Your task to perform on an android device: Search for Mexican restaurants on Maps Image 0: 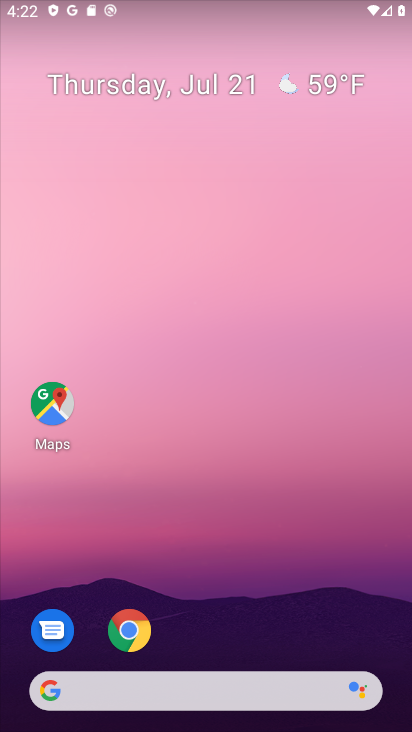
Step 0: drag from (236, 581) to (150, 1)
Your task to perform on an android device: Search for Mexican restaurants on Maps Image 1: 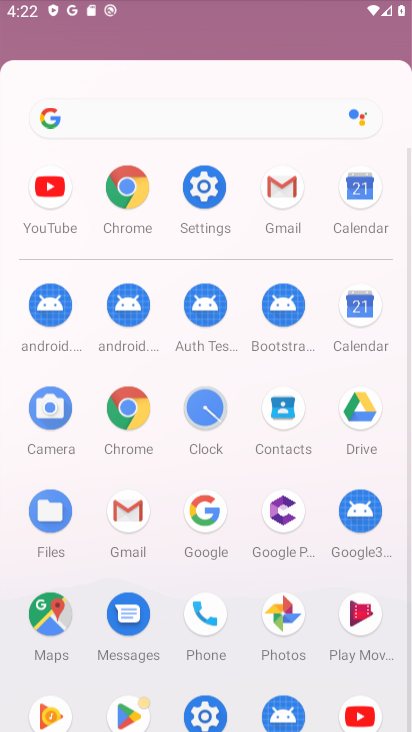
Step 1: drag from (190, 93) to (210, 9)
Your task to perform on an android device: Search for Mexican restaurants on Maps Image 2: 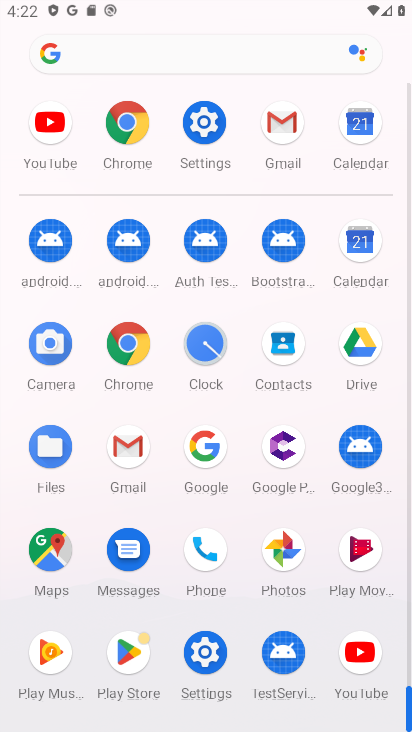
Step 2: click (67, 547)
Your task to perform on an android device: Search for Mexican restaurants on Maps Image 3: 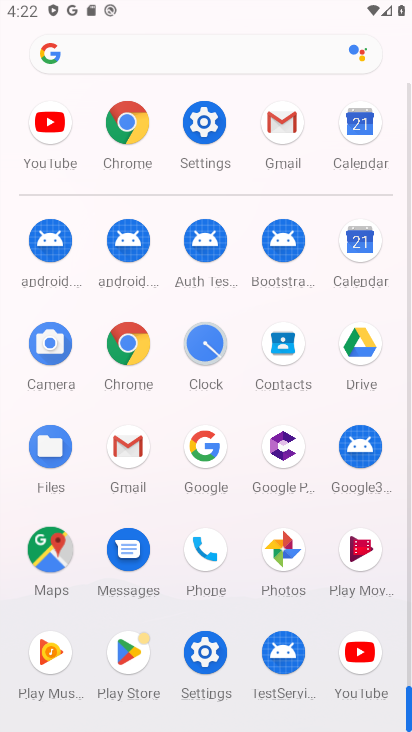
Step 3: click (52, 552)
Your task to perform on an android device: Search for Mexican restaurants on Maps Image 4: 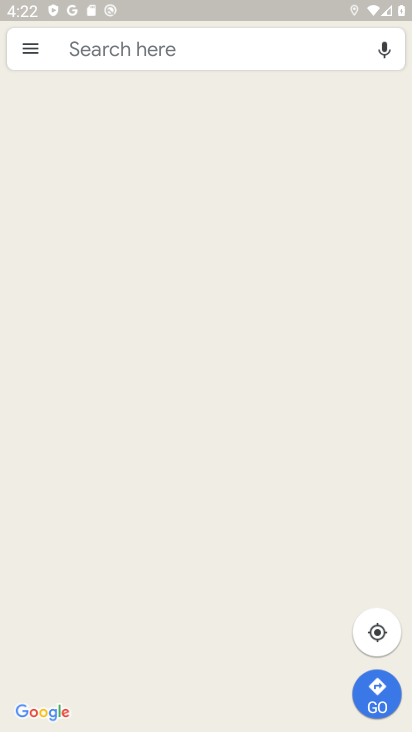
Step 4: click (75, 40)
Your task to perform on an android device: Search for Mexican restaurants on Maps Image 5: 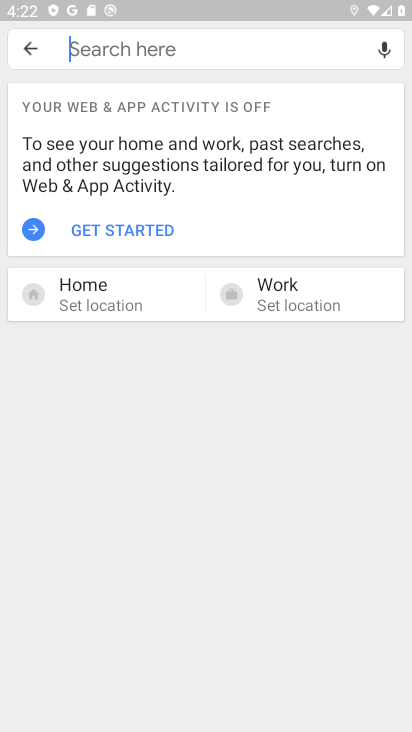
Step 5: click (82, 40)
Your task to perform on an android device: Search for Mexican restaurants on Maps Image 6: 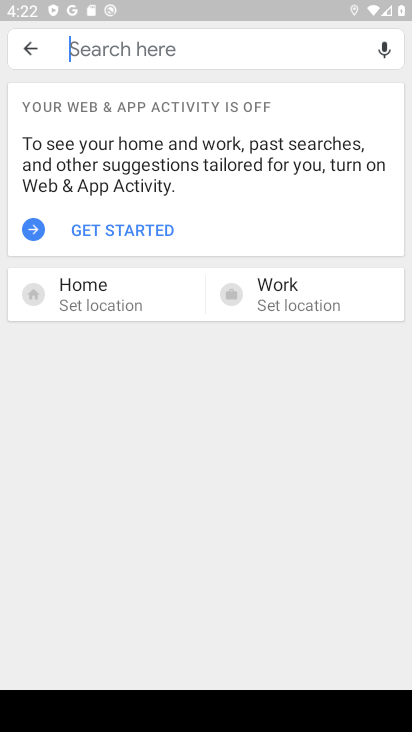
Step 6: type "mexican restaurants"
Your task to perform on an android device: Search for Mexican restaurants on Maps Image 7: 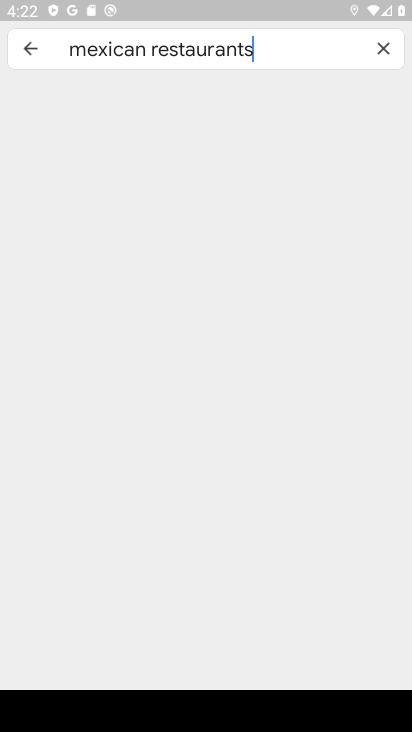
Step 7: click (263, 48)
Your task to perform on an android device: Search for Mexican restaurants on Maps Image 8: 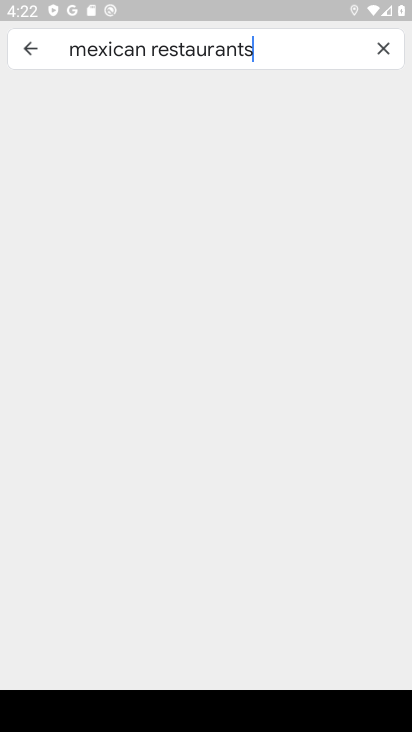
Step 8: click (267, 48)
Your task to perform on an android device: Search for Mexican restaurants on Maps Image 9: 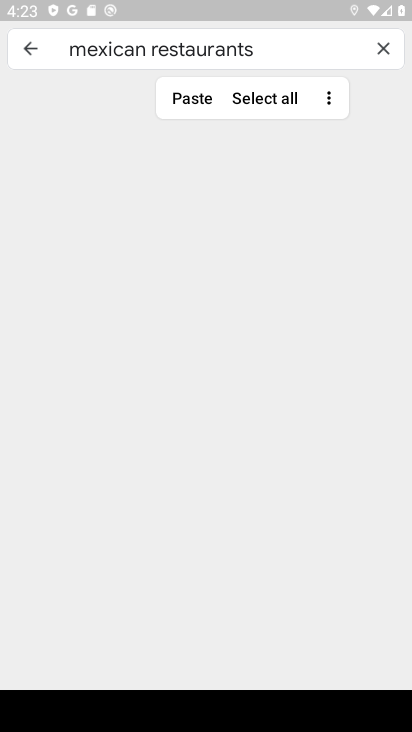
Step 9: click (203, 99)
Your task to perform on an android device: Search for Mexican restaurants on Maps Image 10: 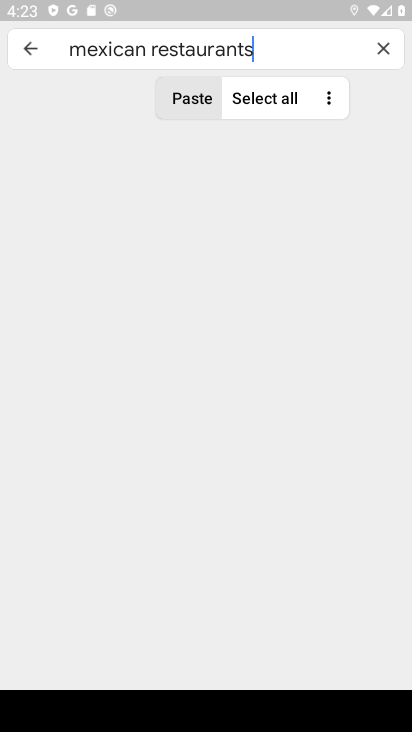
Step 10: click (209, 104)
Your task to perform on an android device: Search for Mexican restaurants on Maps Image 11: 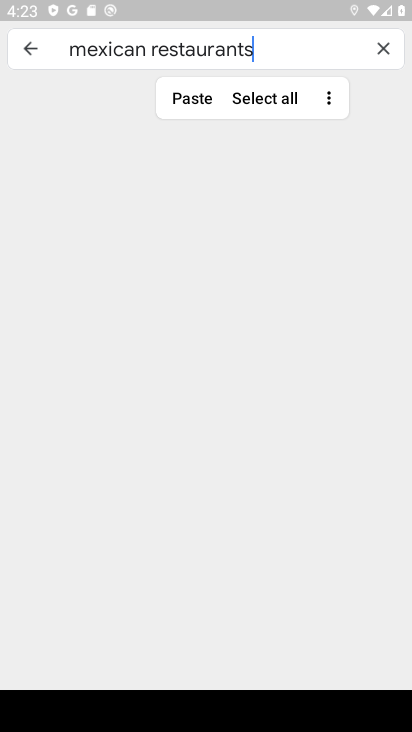
Step 11: click (209, 104)
Your task to perform on an android device: Search for Mexican restaurants on Maps Image 12: 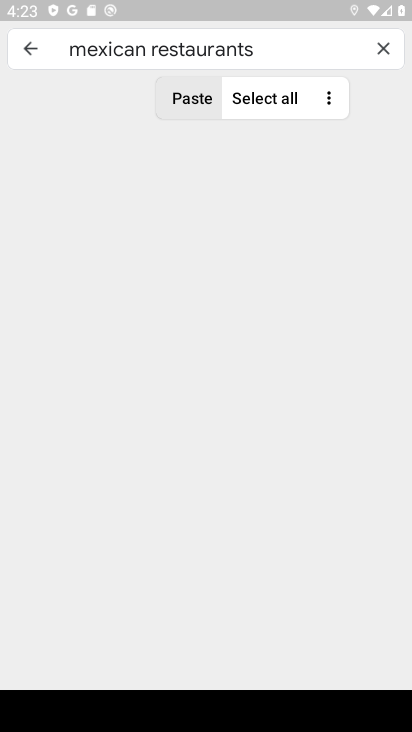
Step 12: click (203, 88)
Your task to perform on an android device: Search for Mexican restaurants on Maps Image 13: 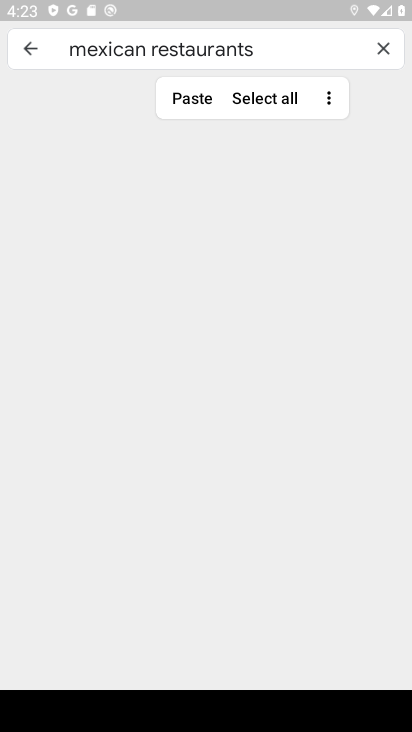
Step 13: click (267, 31)
Your task to perform on an android device: Search for Mexican restaurants on Maps Image 14: 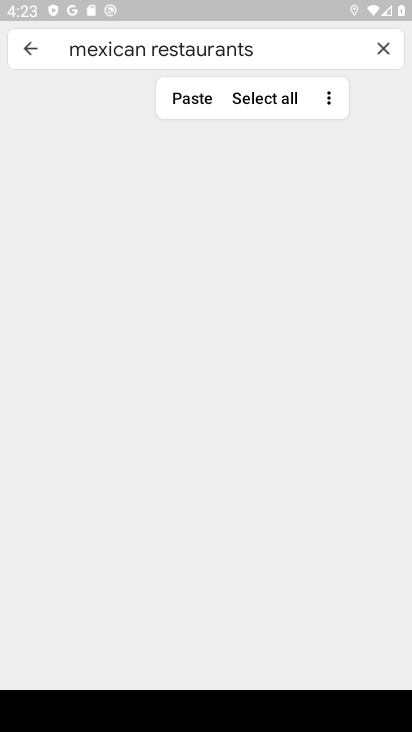
Step 14: click (270, 34)
Your task to perform on an android device: Search for Mexican restaurants on Maps Image 15: 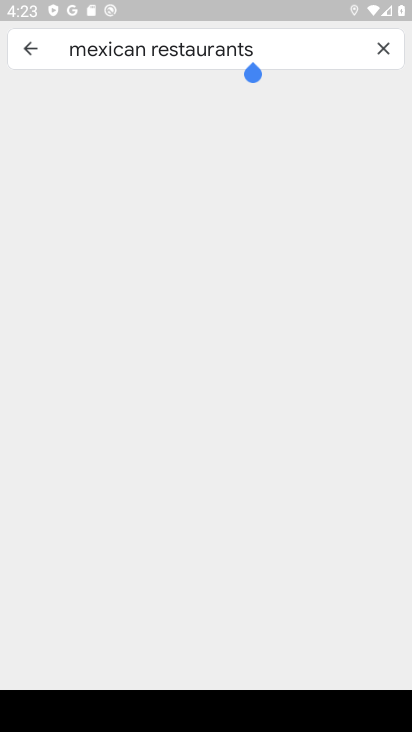
Step 15: click (382, 42)
Your task to perform on an android device: Search for Mexican restaurants on Maps Image 16: 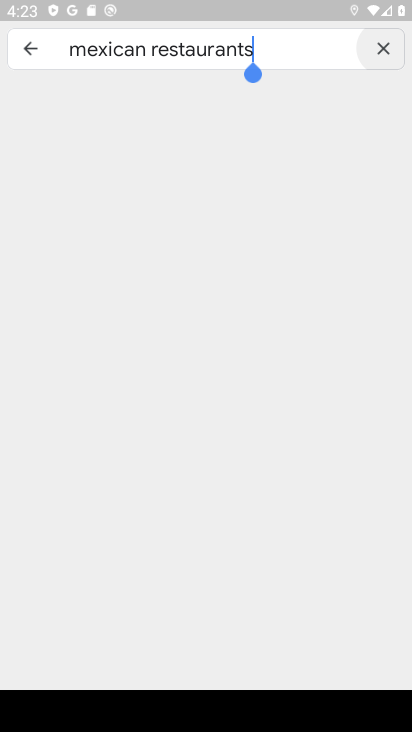
Step 16: click (381, 42)
Your task to perform on an android device: Search for Mexican restaurants on Maps Image 17: 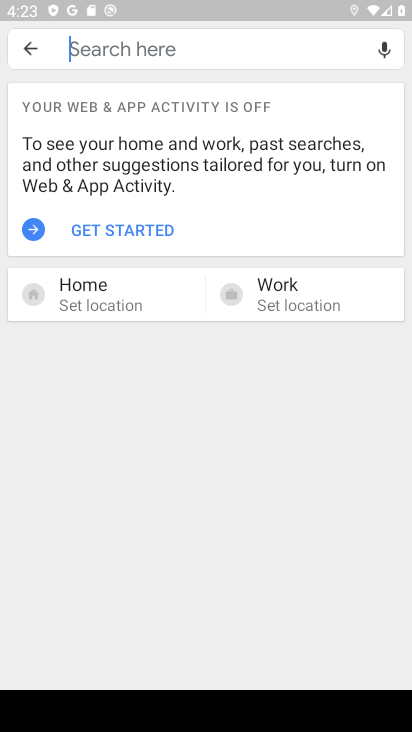
Step 17: click (382, 47)
Your task to perform on an android device: Search for Mexican restaurants on Maps Image 18: 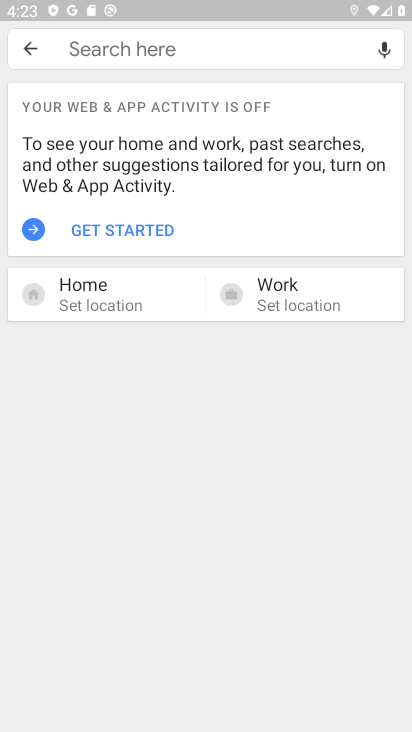
Step 18: click (190, 55)
Your task to perform on an android device: Search for Mexican restaurants on Maps Image 19: 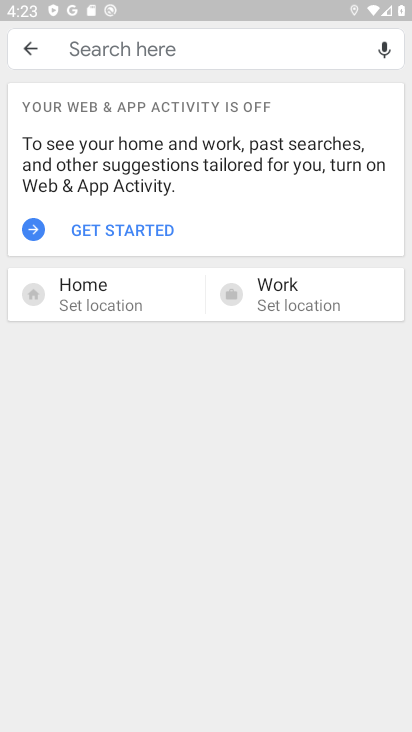
Step 19: click (196, 59)
Your task to perform on an android device: Search for Mexican restaurants on Maps Image 20: 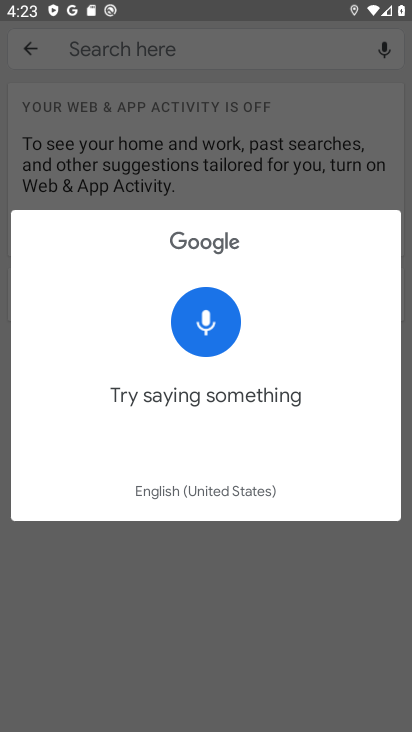
Step 20: click (198, 61)
Your task to perform on an android device: Search for Mexican restaurants on Maps Image 21: 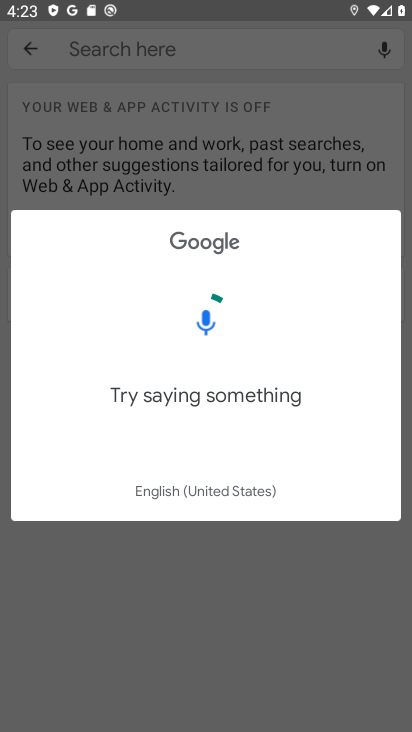
Step 21: click (198, 61)
Your task to perform on an android device: Search for Mexican restaurants on Maps Image 22: 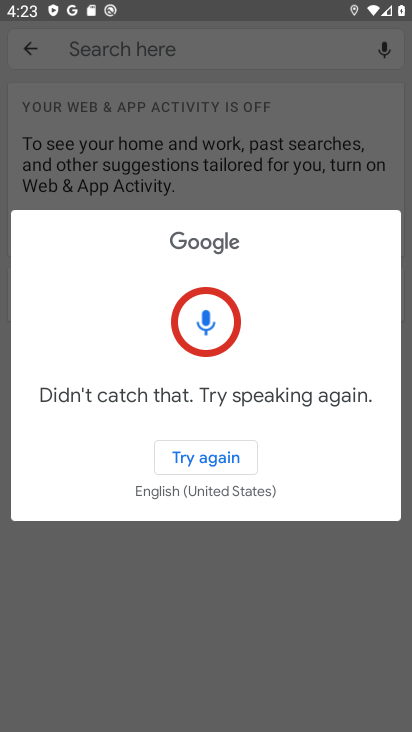
Step 22: click (200, 63)
Your task to perform on an android device: Search for Mexican restaurants on Maps Image 23: 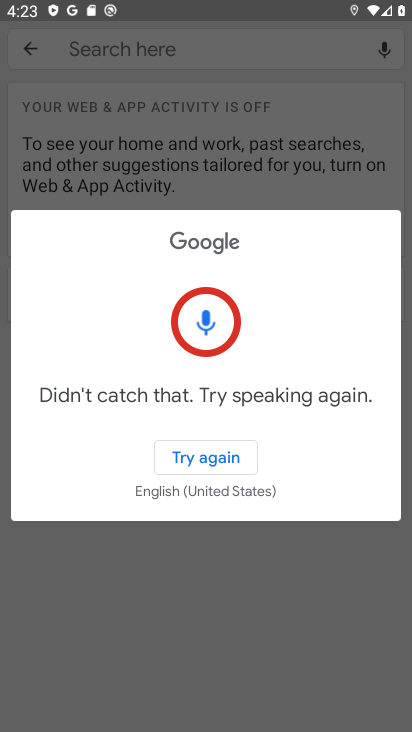
Step 23: click (160, 27)
Your task to perform on an android device: Search for Mexican restaurants on Maps Image 24: 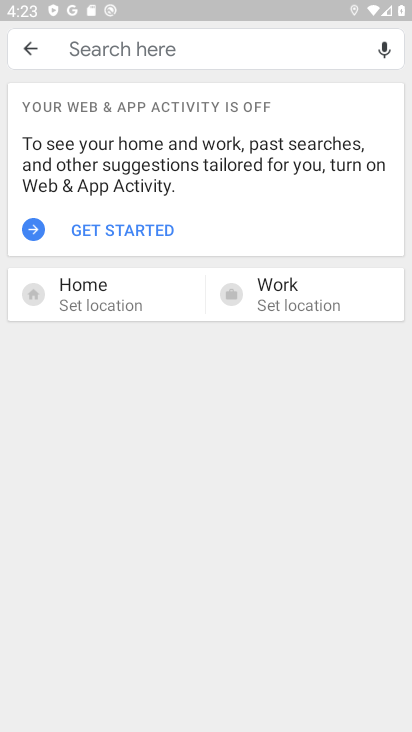
Step 24: click (188, 71)
Your task to perform on an android device: Search for Mexican restaurants on Maps Image 25: 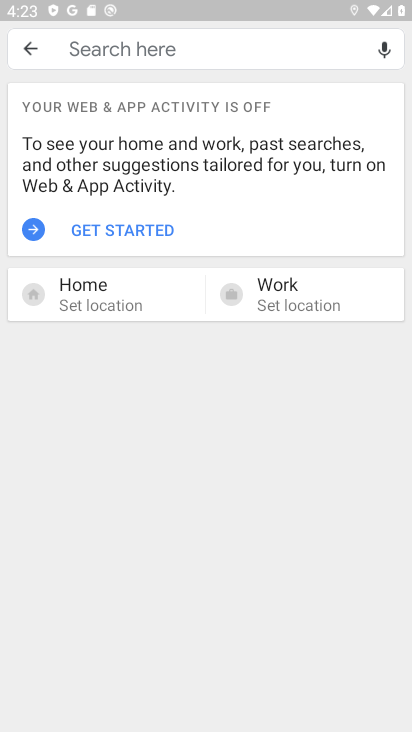
Step 25: click (246, 535)
Your task to perform on an android device: Search for Mexican restaurants on Maps Image 26: 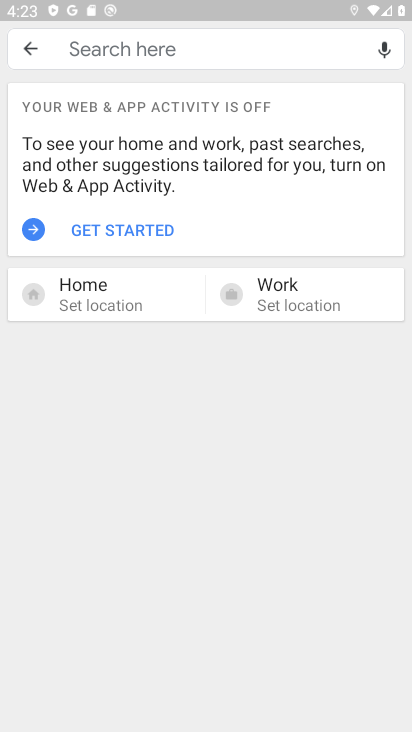
Step 26: click (22, 49)
Your task to perform on an android device: Search for Mexican restaurants on Maps Image 27: 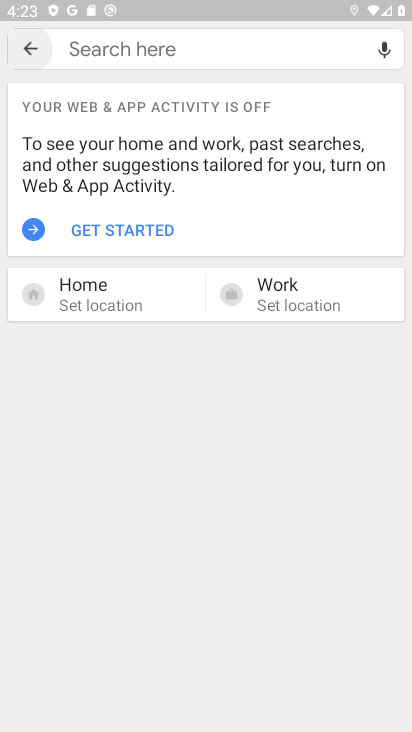
Step 27: click (23, 49)
Your task to perform on an android device: Search for Mexican restaurants on Maps Image 28: 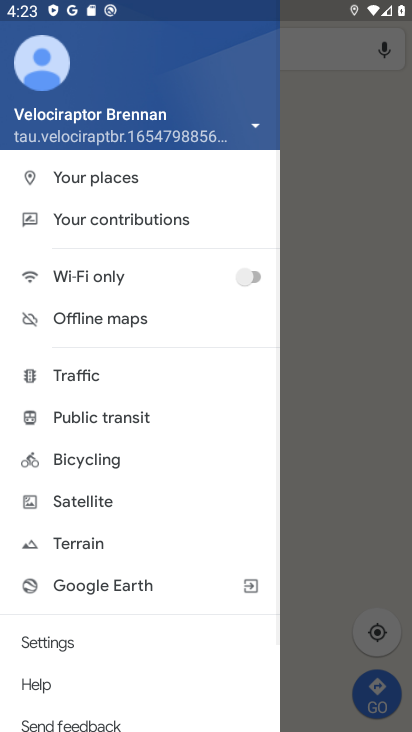
Step 28: click (363, 239)
Your task to perform on an android device: Search for Mexican restaurants on Maps Image 29: 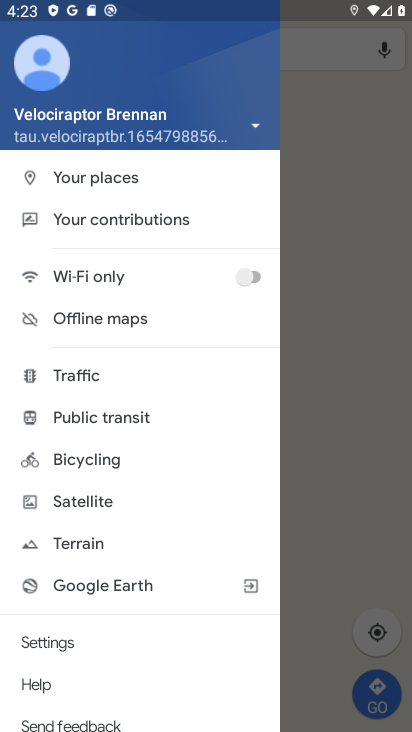
Step 29: click (355, 236)
Your task to perform on an android device: Search for Mexican restaurants on Maps Image 30: 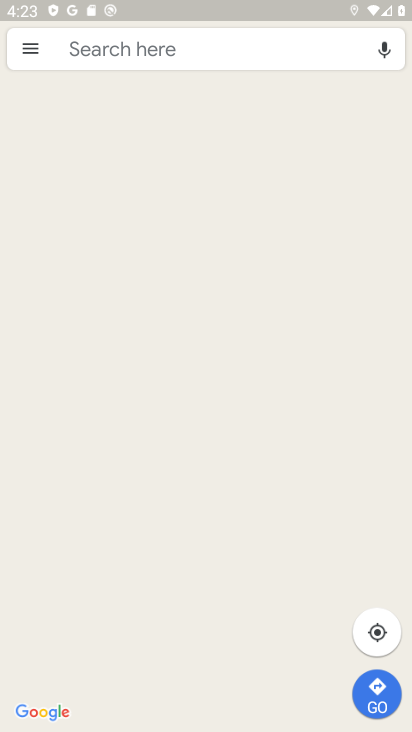
Step 30: press back button
Your task to perform on an android device: Search for Mexican restaurants on Maps Image 31: 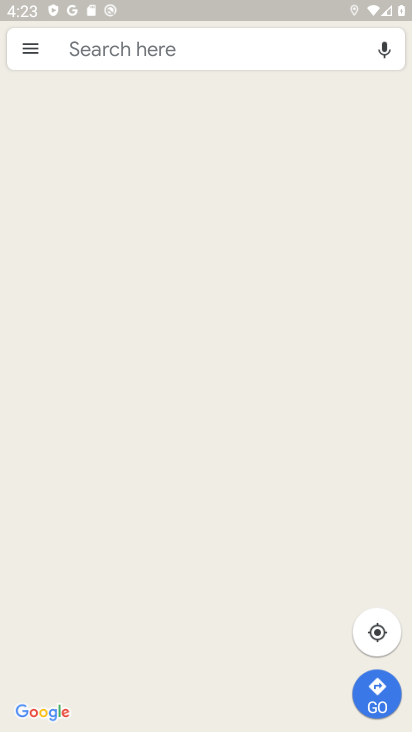
Step 31: press back button
Your task to perform on an android device: Search for Mexican restaurants on Maps Image 32: 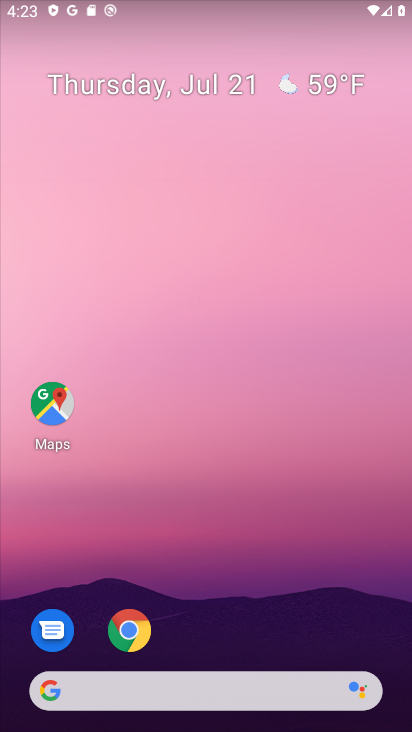
Step 32: press home button
Your task to perform on an android device: Search for Mexican restaurants on Maps Image 33: 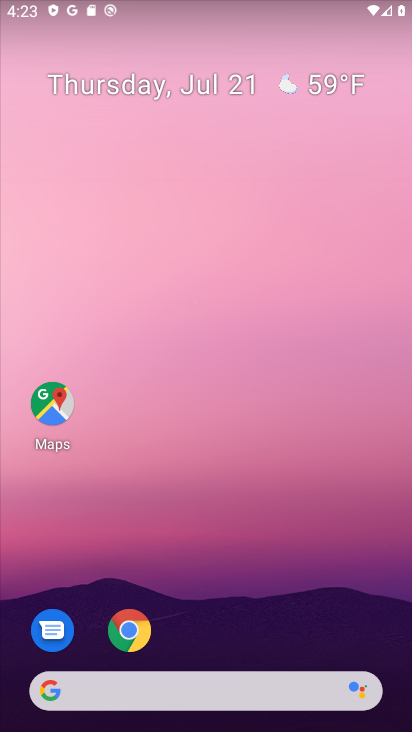
Step 33: press home button
Your task to perform on an android device: Search for Mexican restaurants on Maps Image 34: 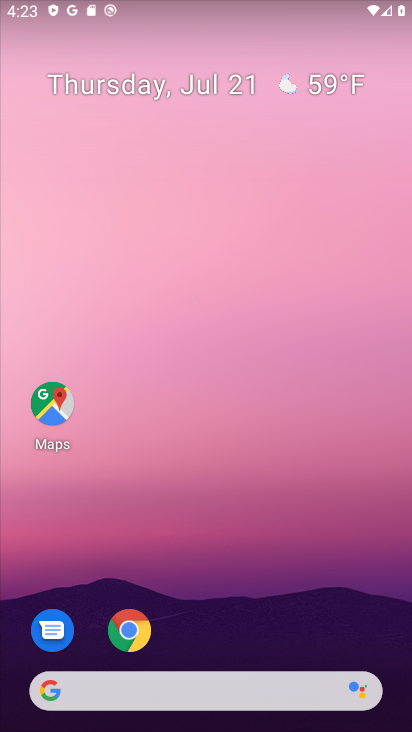
Step 34: click (275, 164)
Your task to perform on an android device: Search for Mexican restaurants on Maps Image 35: 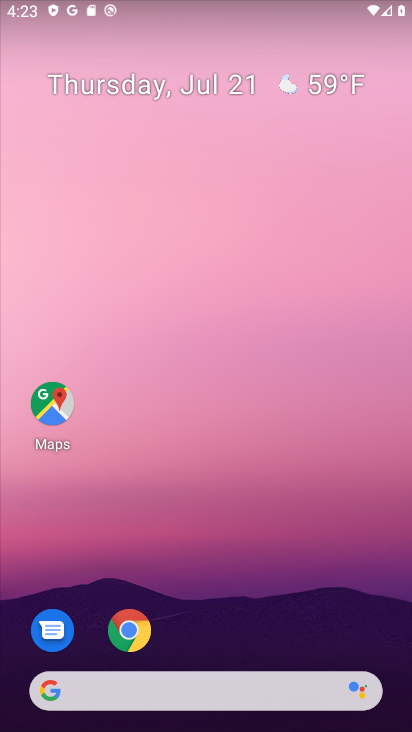
Step 35: drag from (217, 482) to (187, 28)
Your task to perform on an android device: Search for Mexican restaurants on Maps Image 36: 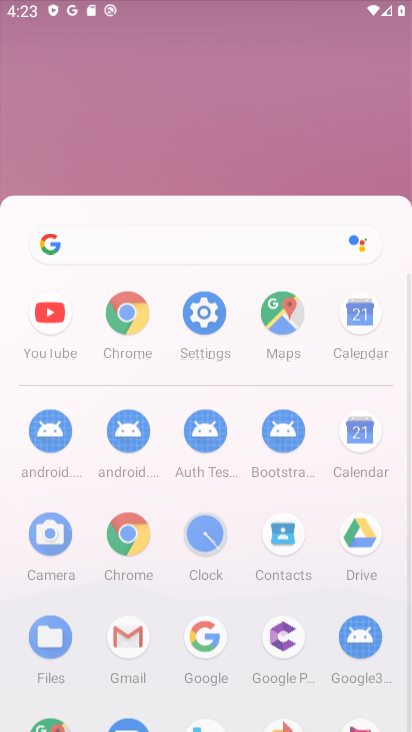
Step 36: drag from (176, 444) to (146, 117)
Your task to perform on an android device: Search for Mexican restaurants on Maps Image 37: 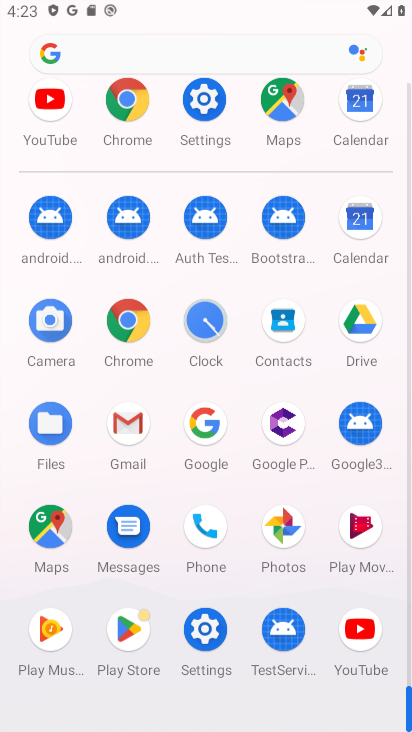
Step 37: drag from (170, 424) to (170, 136)
Your task to perform on an android device: Search for Mexican restaurants on Maps Image 38: 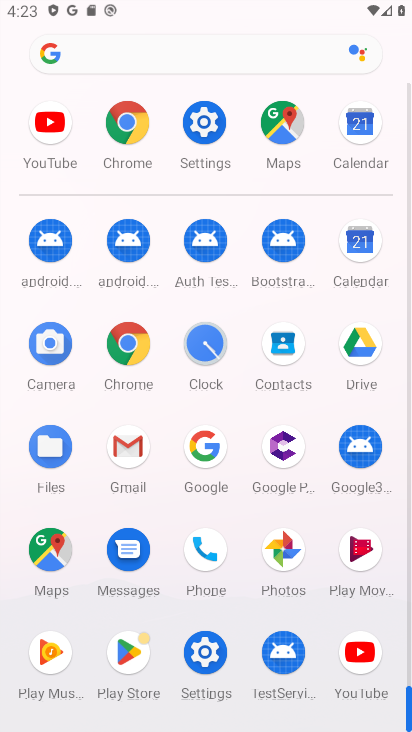
Step 38: click (279, 123)
Your task to perform on an android device: Search for Mexican restaurants on Maps Image 39: 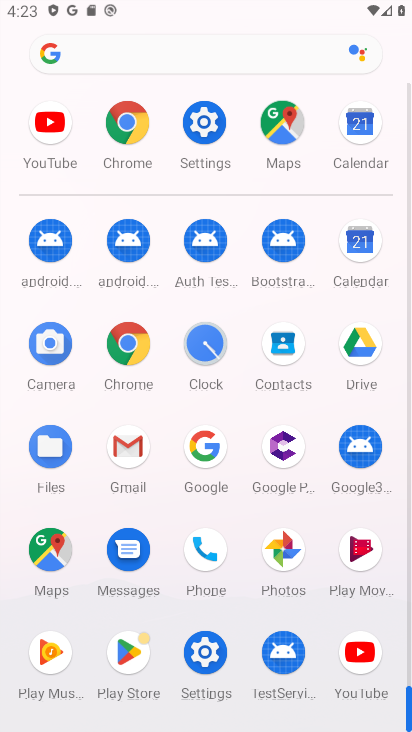
Step 39: click (280, 124)
Your task to perform on an android device: Search for Mexican restaurants on Maps Image 40: 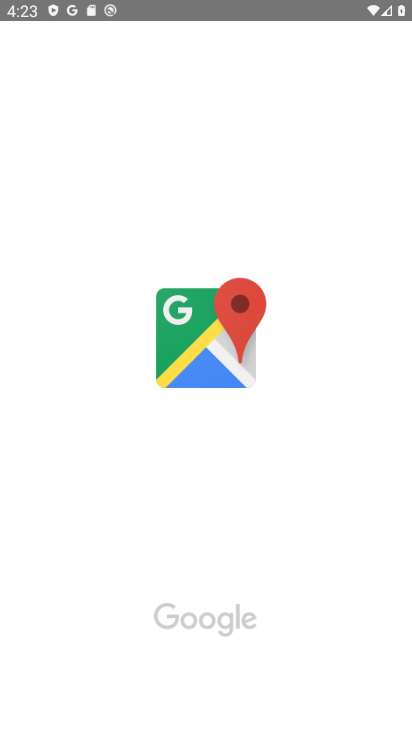
Step 40: click (279, 129)
Your task to perform on an android device: Search for Mexican restaurants on Maps Image 41: 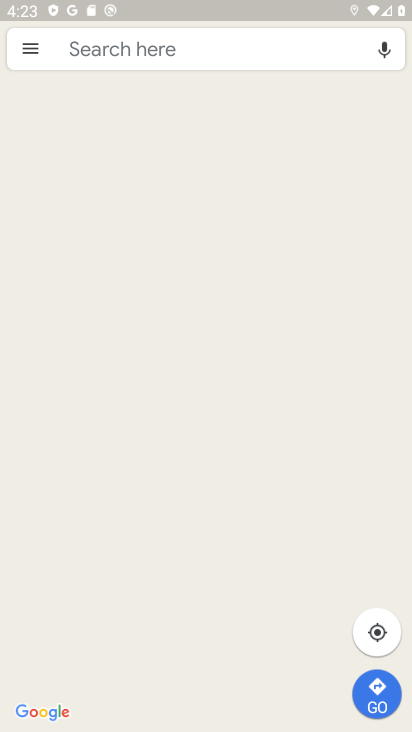
Step 41: click (87, 45)
Your task to perform on an android device: Search for Mexican restaurants on Maps Image 42: 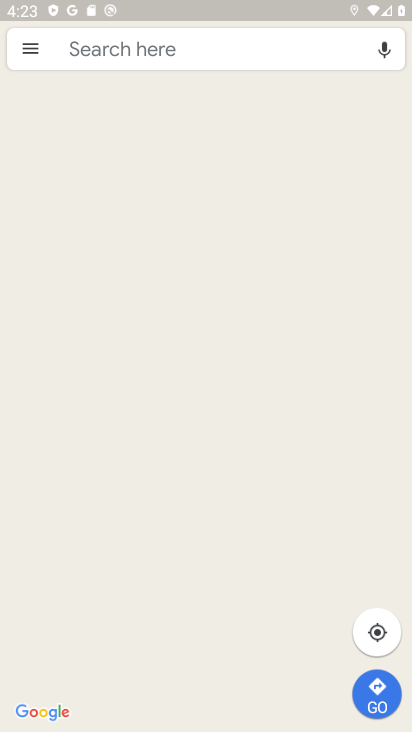
Step 42: click (87, 45)
Your task to perform on an android device: Search for Mexican restaurants on Maps Image 43: 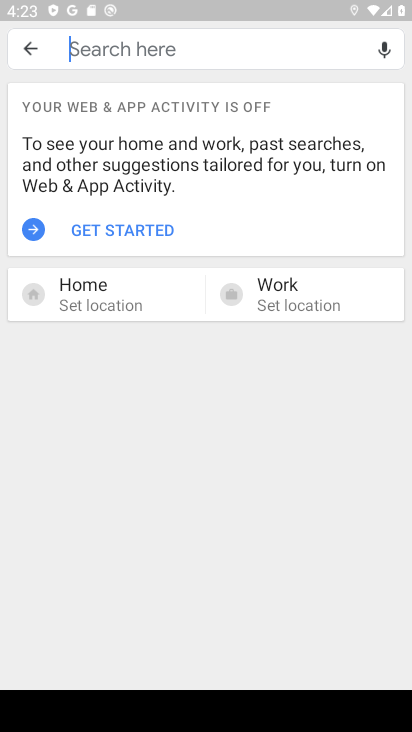
Step 43: type "mexican restuarants"
Your task to perform on an android device: Search for Mexican restaurants on Maps Image 44: 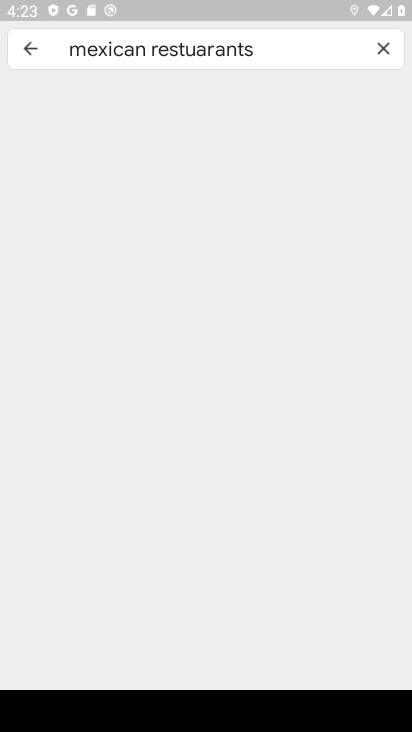
Step 44: click (238, 59)
Your task to perform on an android device: Search for Mexican restaurants on Maps Image 45: 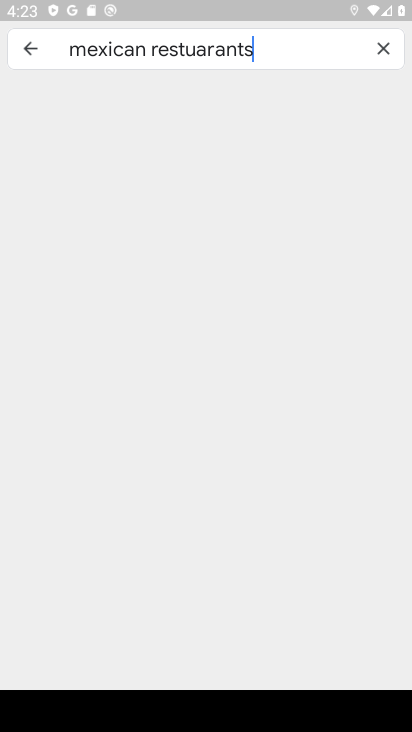
Step 45: click (255, 44)
Your task to perform on an android device: Search for Mexican restaurants on Maps Image 46: 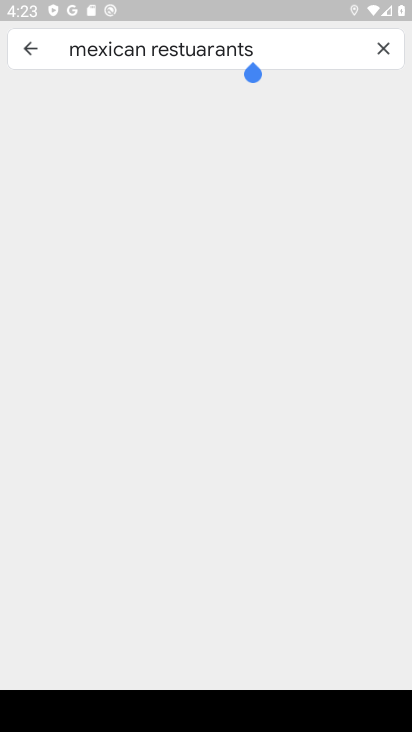
Step 46: click (257, 44)
Your task to perform on an android device: Search for Mexican restaurants on Maps Image 47: 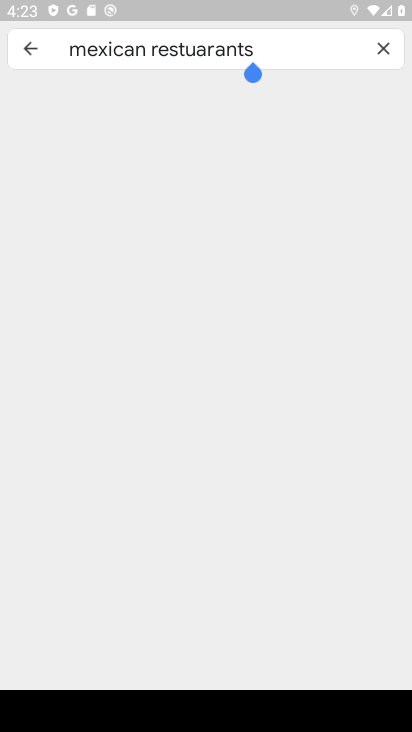
Step 47: task complete